Your task to perform on an android device: Go to wifi settings Image 0: 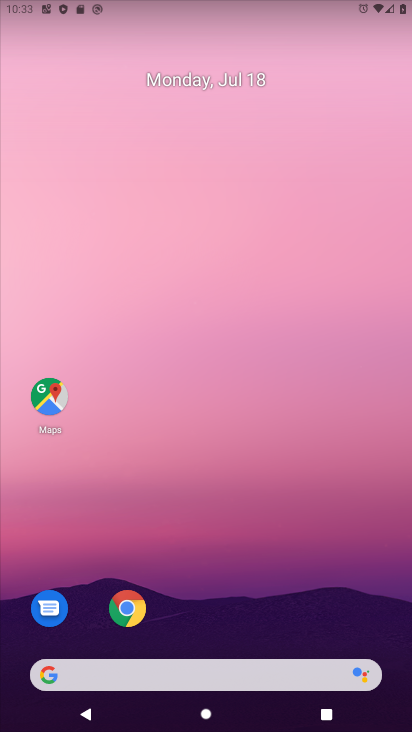
Step 0: drag from (43, 700) to (200, 242)
Your task to perform on an android device: Go to wifi settings Image 1: 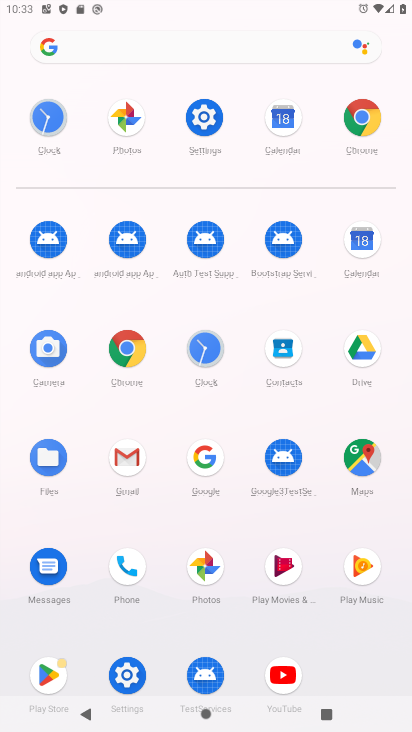
Step 1: click (121, 678)
Your task to perform on an android device: Go to wifi settings Image 2: 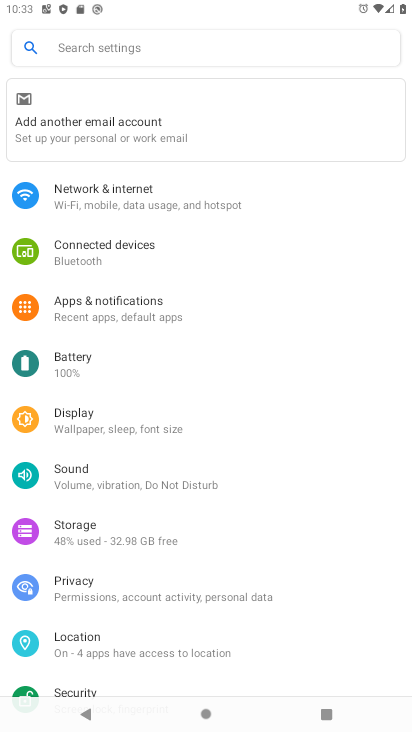
Step 2: click (108, 195)
Your task to perform on an android device: Go to wifi settings Image 3: 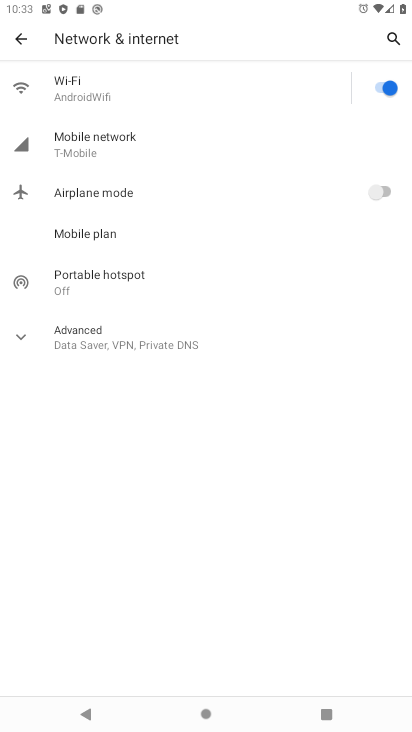
Step 3: task complete